Your task to perform on an android device: refresh tabs in the chrome app Image 0: 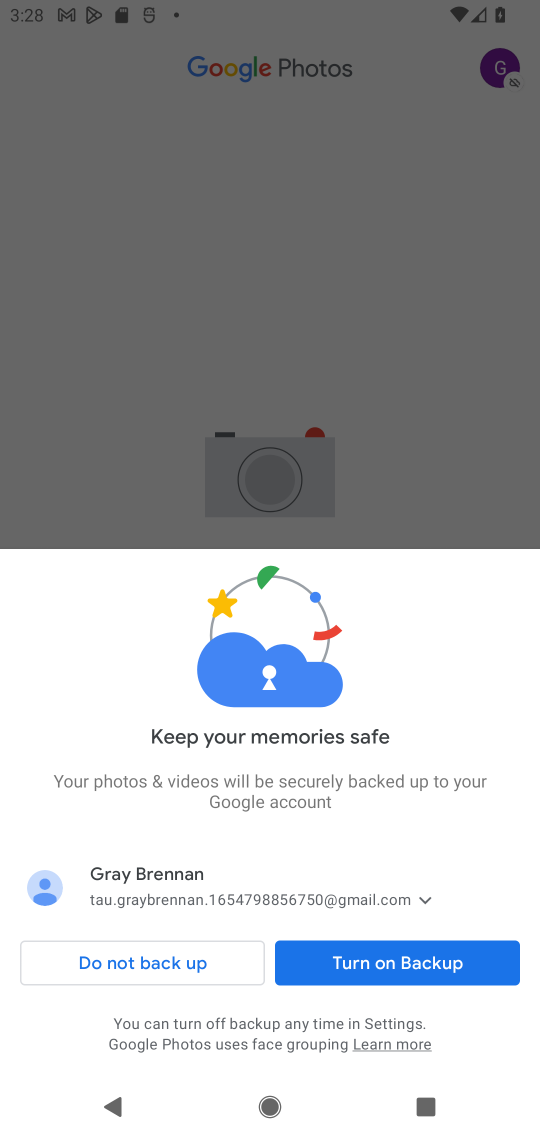
Step 0: click (163, 973)
Your task to perform on an android device: refresh tabs in the chrome app Image 1: 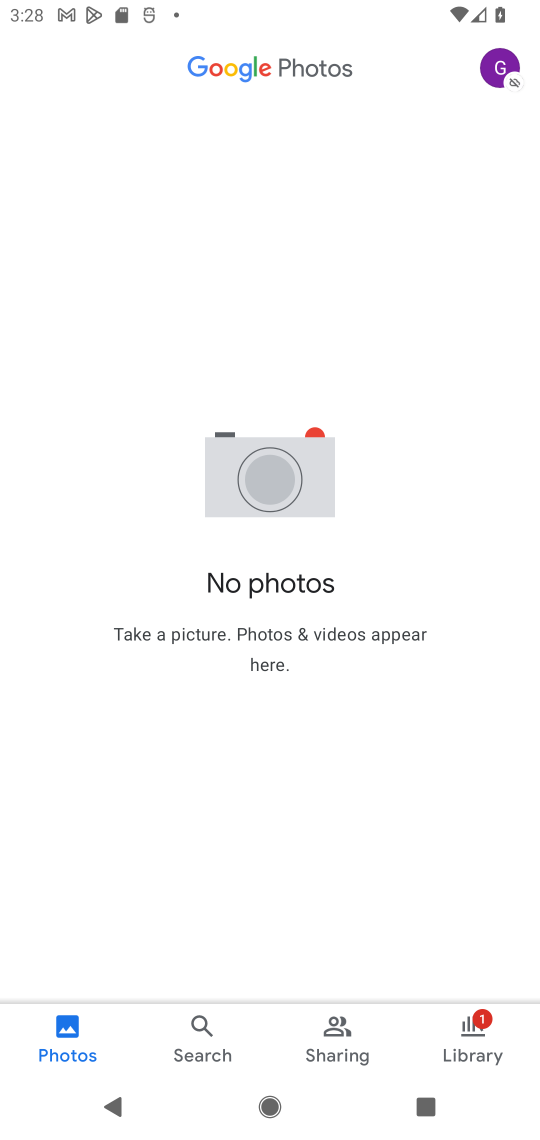
Step 1: press home button
Your task to perform on an android device: refresh tabs in the chrome app Image 2: 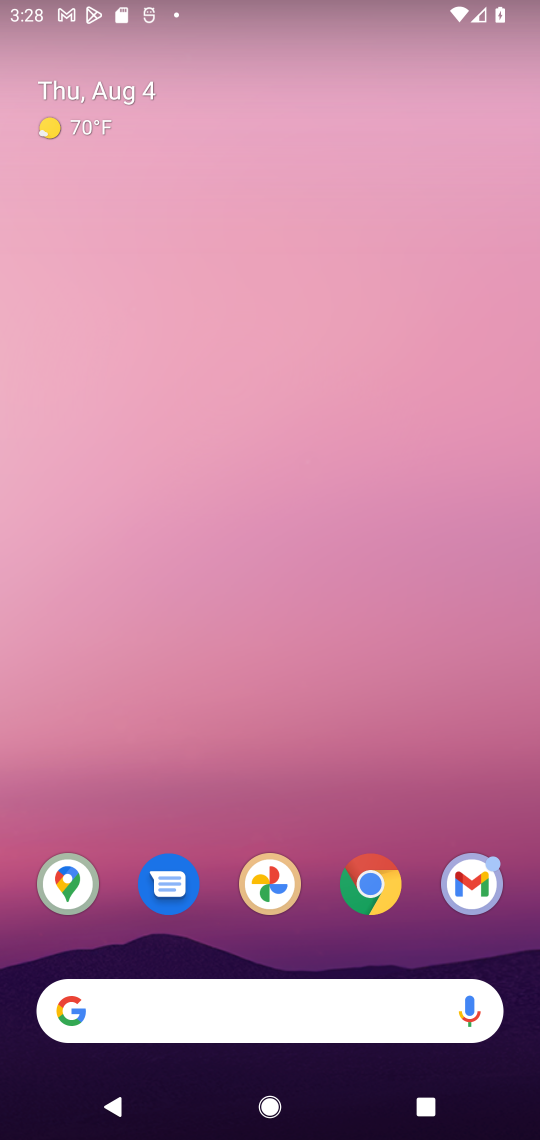
Step 2: click (374, 873)
Your task to perform on an android device: refresh tabs in the chrome app Image 3: 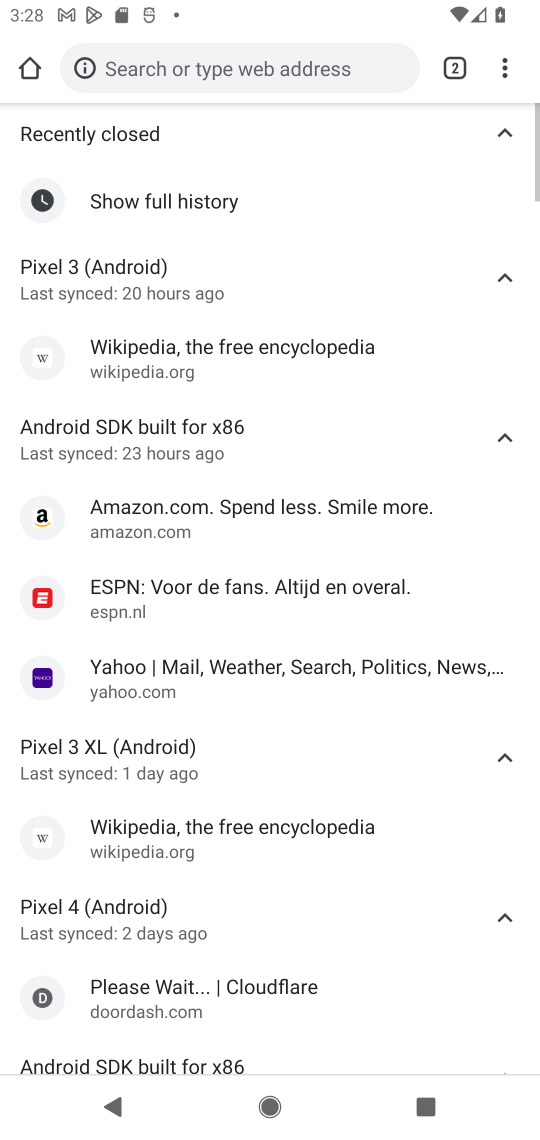
Step 3: click (517, 75)
Your task to perform on an android device: refresh tabs in the chrome app Image 4: 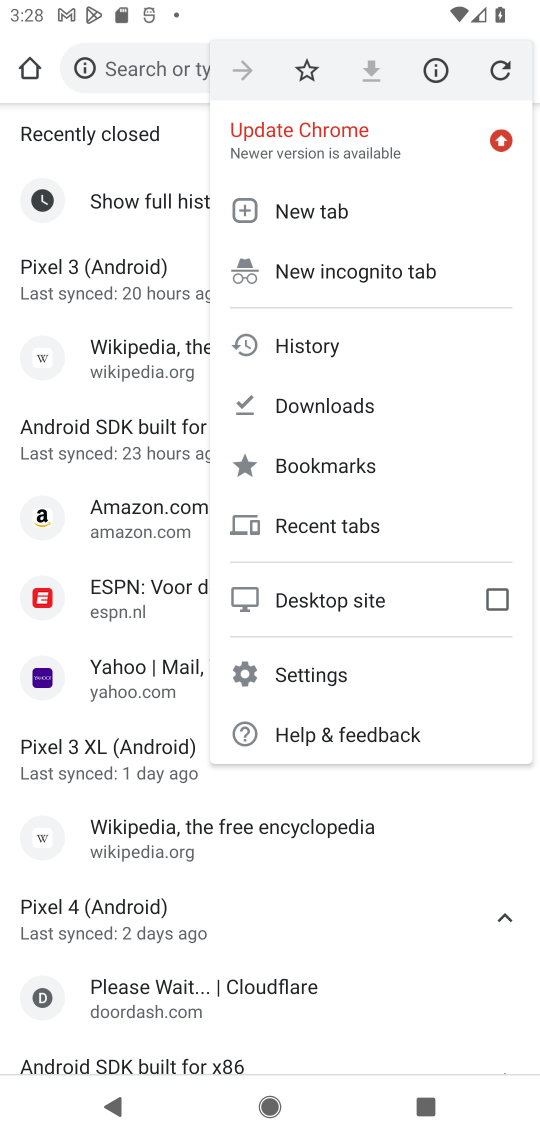
Step 4: click (505, 75)
Your task to perform on an android device: refresh tabs in the chrome app Image 5: 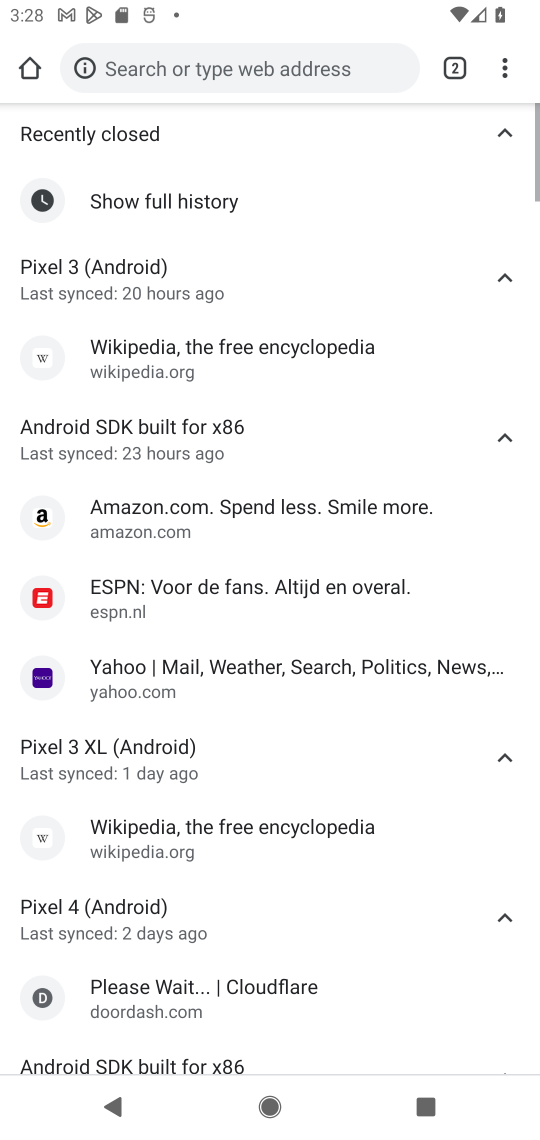
Step 5: task complete